Your task to perform on an android device: Go to accessibility settings Image 0: 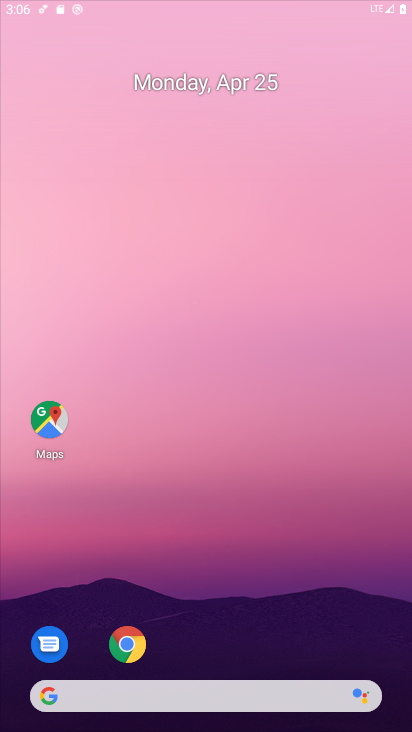
Step 0: click (137, 643)
Your task to perform on an android device: Go to accessibility settings Image 1: 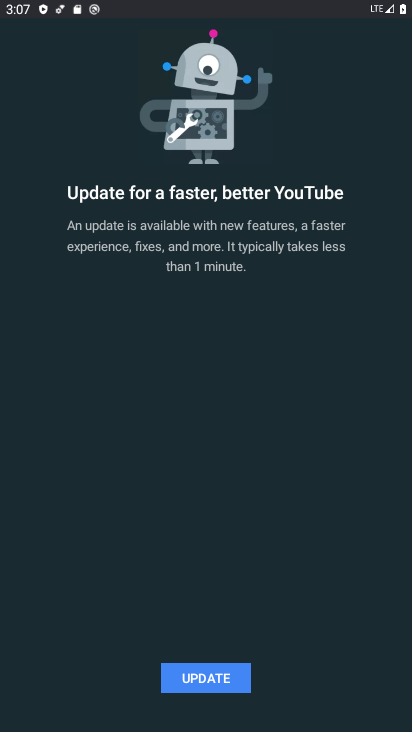
Step 1: press home button
Your task to perform on an android device: Go to accessibility settings Image 2: 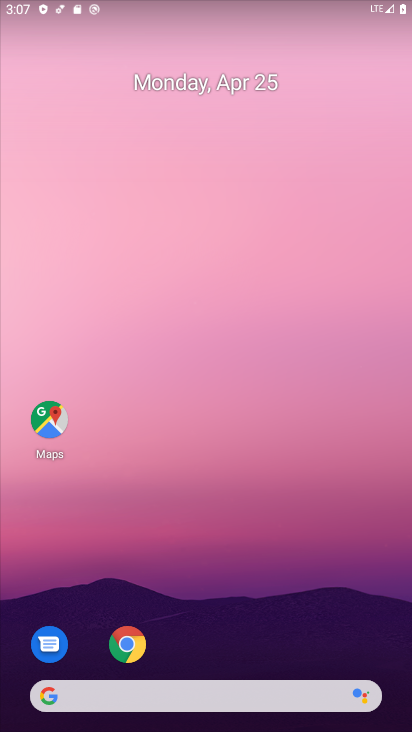
Step 2: click (134, 648)
Your task to perform on an android device: Go to accessibility settings Image 3: 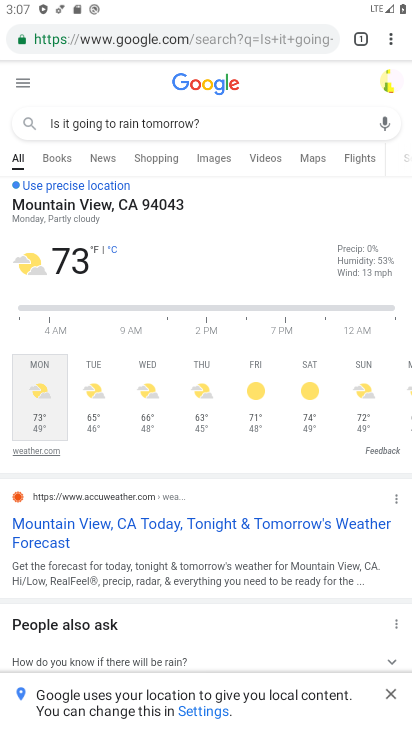
Step 3: click (388, 40)
Your task to perform on an android device: Go to accessibility settings Image 4: 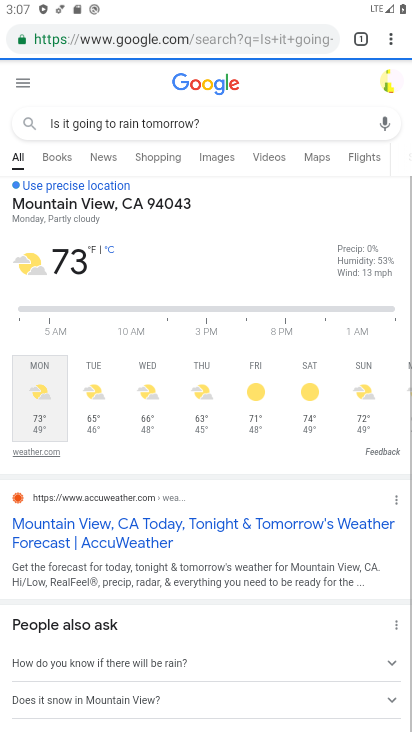
Step 4: drag from (388, 40) to (287, 479)
Your task to perform on an android device: Go to accessibility settings Image 5: 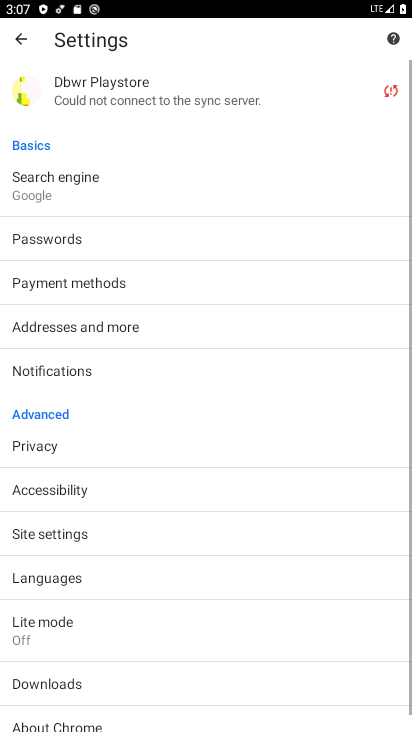
Step 5: click (151, 497)
Your task to perform on an android device: Go to accessibility settings Image 6: 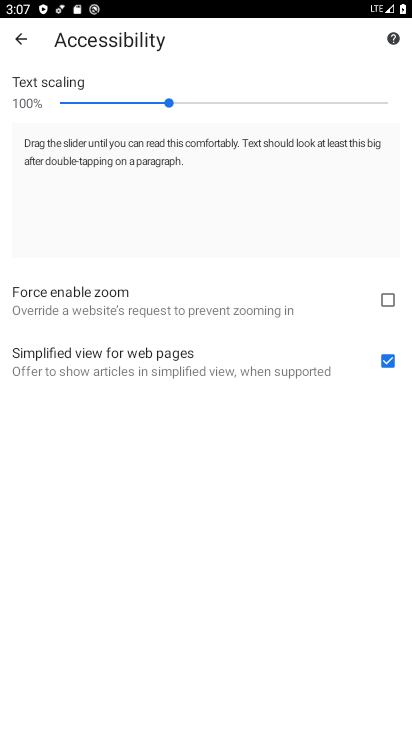
Step 6: task complete